Your task to perform on an android device: Add "apple airpods pro" to the cart on ebay.com, then select checkout. Image 0: 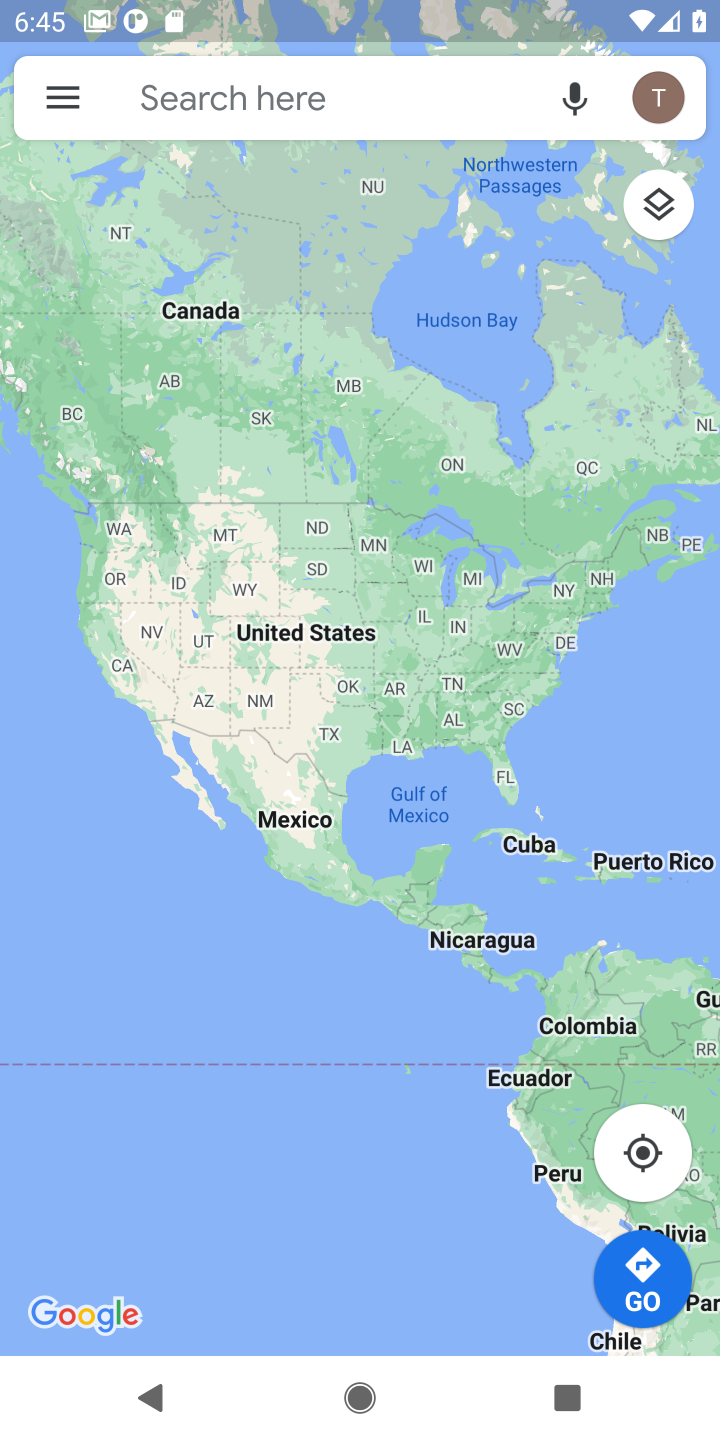
Step 0: press home button
Your task to perform on an android device: Add "apple airpods pro" to the cart on ebay.com, then select checkout. Image 1: 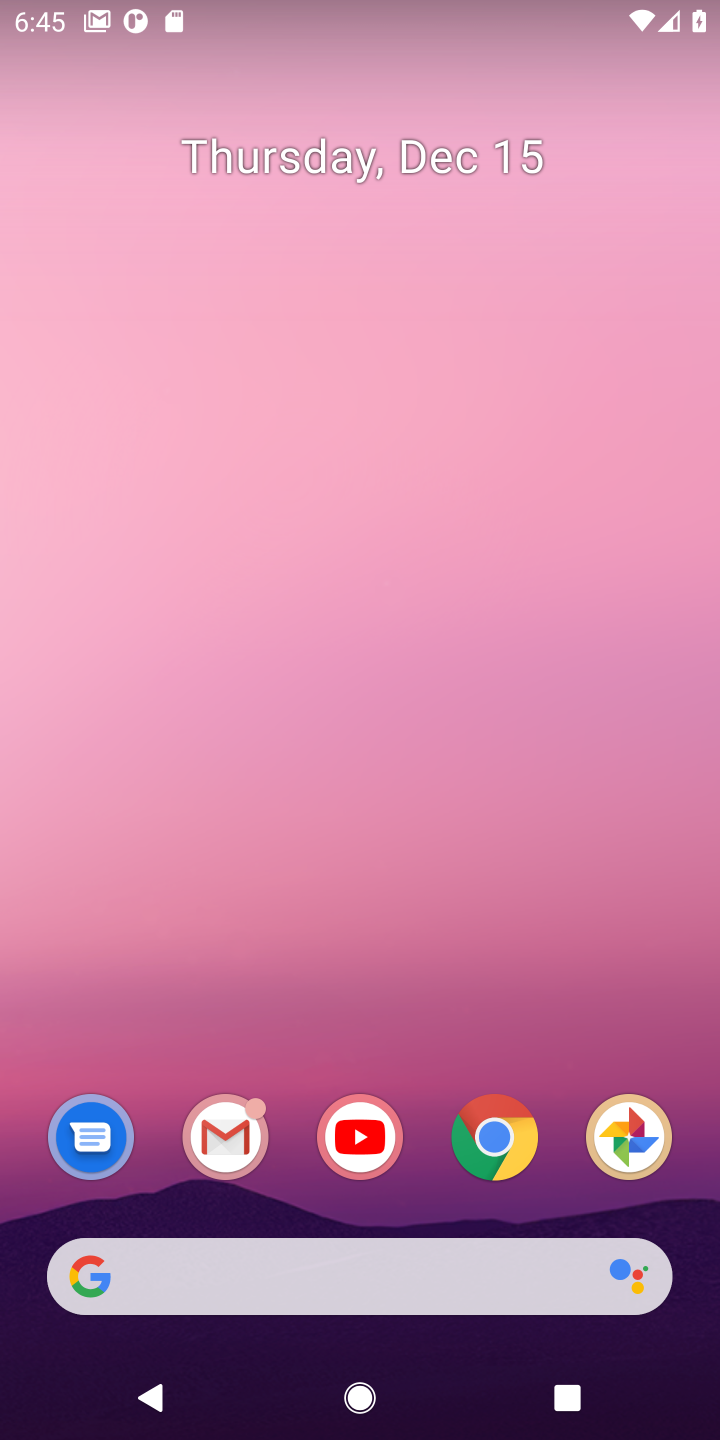
Step 1: drag from (409, 1210) to (409, 444)
Your task to perform on an android device: Add "apple airpods pro" to the cart on ebay.com, then select checkout. Image 2: 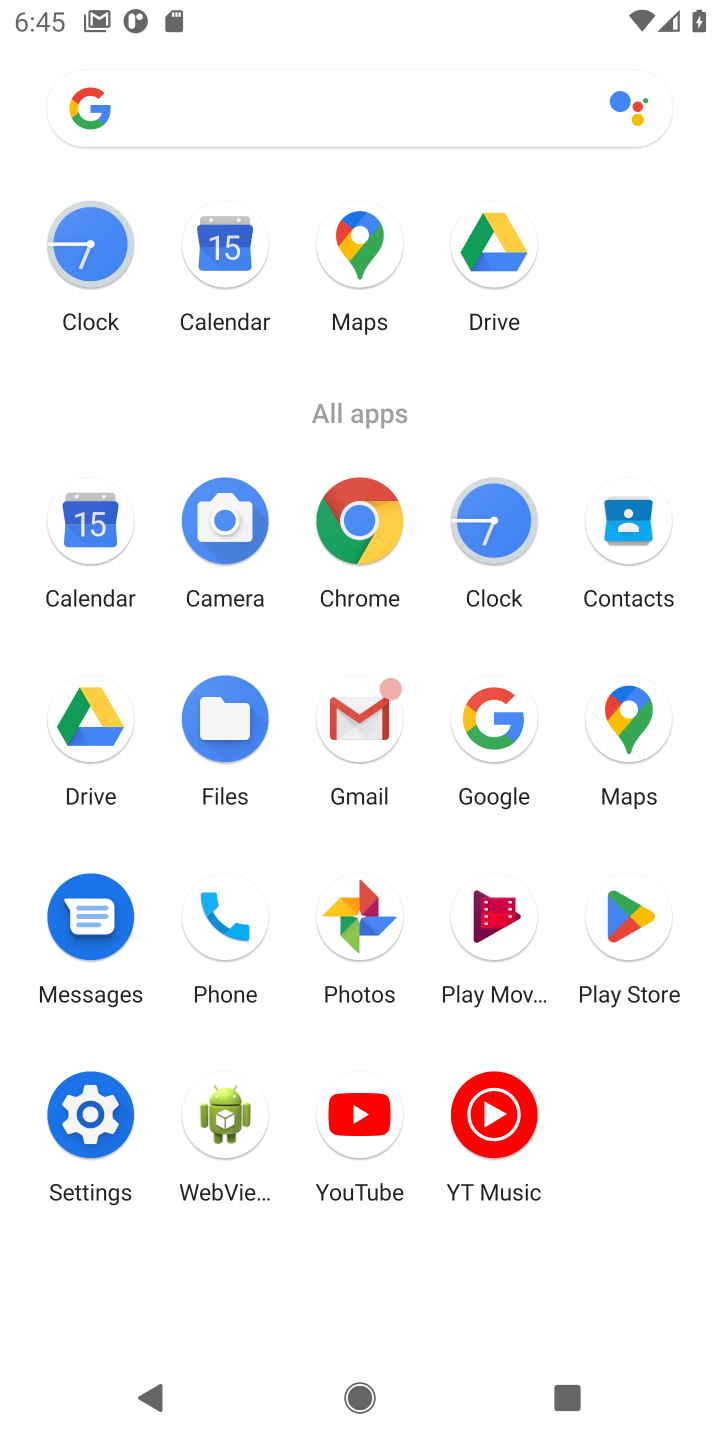
Step 2: click (484, 714)
Your task to perform on an android device: Add "apple airpods pro" to the cart on ebay.com, then select checkout. Image 3: 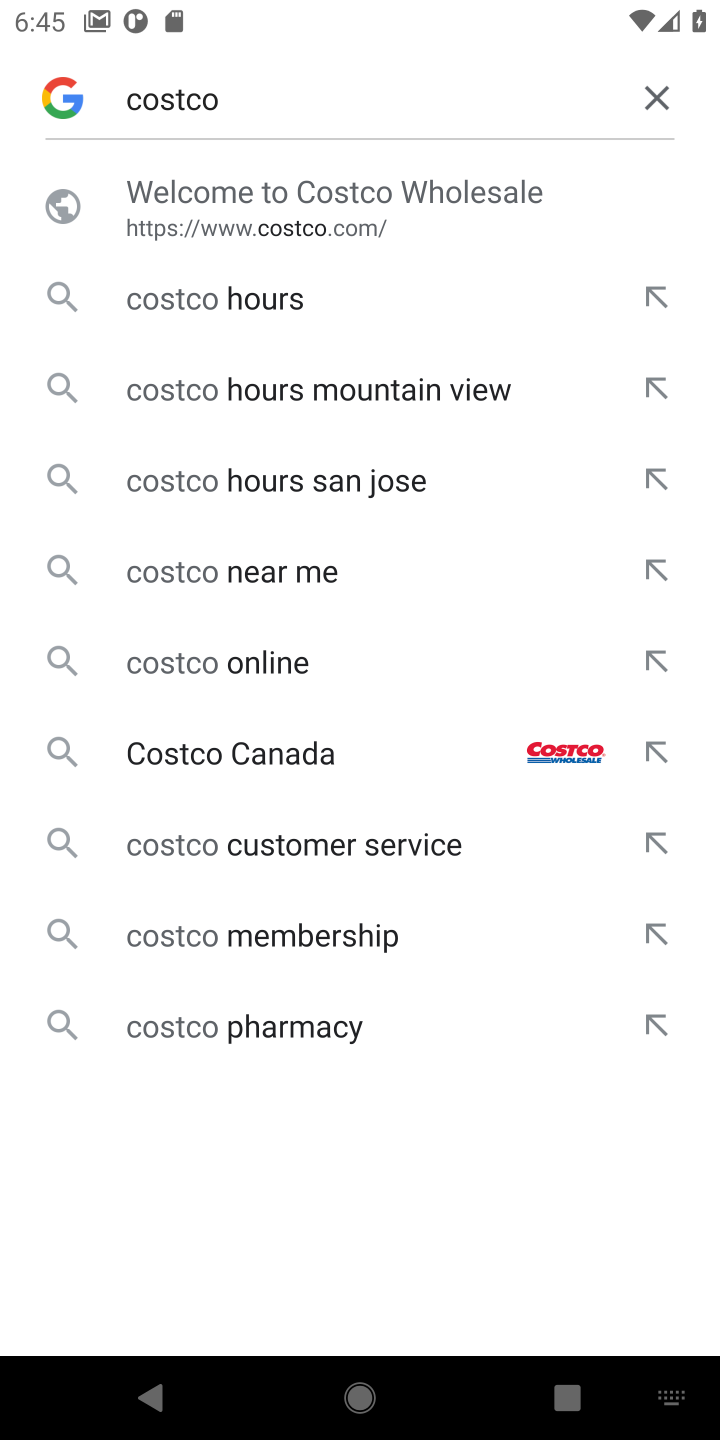
Step 3: click (203, 118)
Your task to perform on an android device: Add "apple airpods pro" to the cart on ebay.com, then select checkout. Image 4: 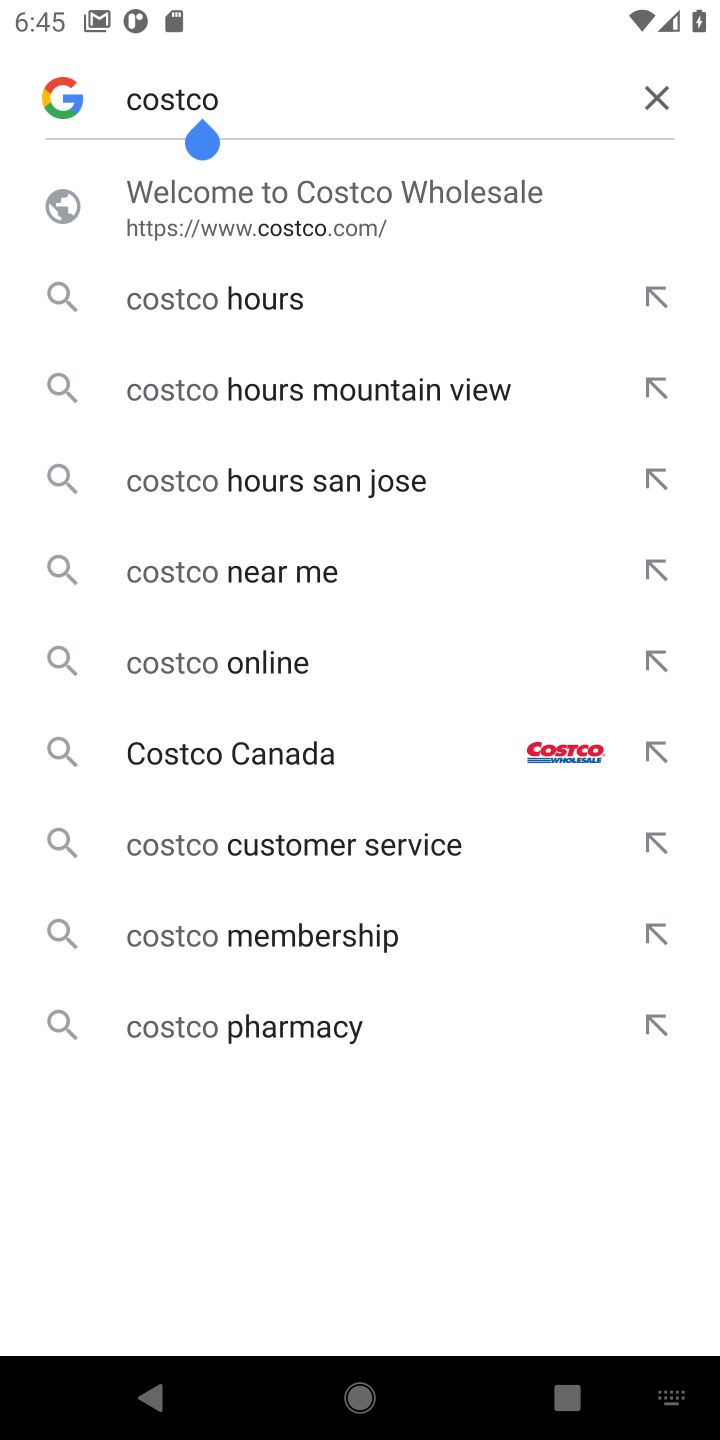
Step 4: click (651, 106)
Your task to perform on an android device: Add "apple airpods pro" to the cart on ebay.com, then select checkout. Image 5: 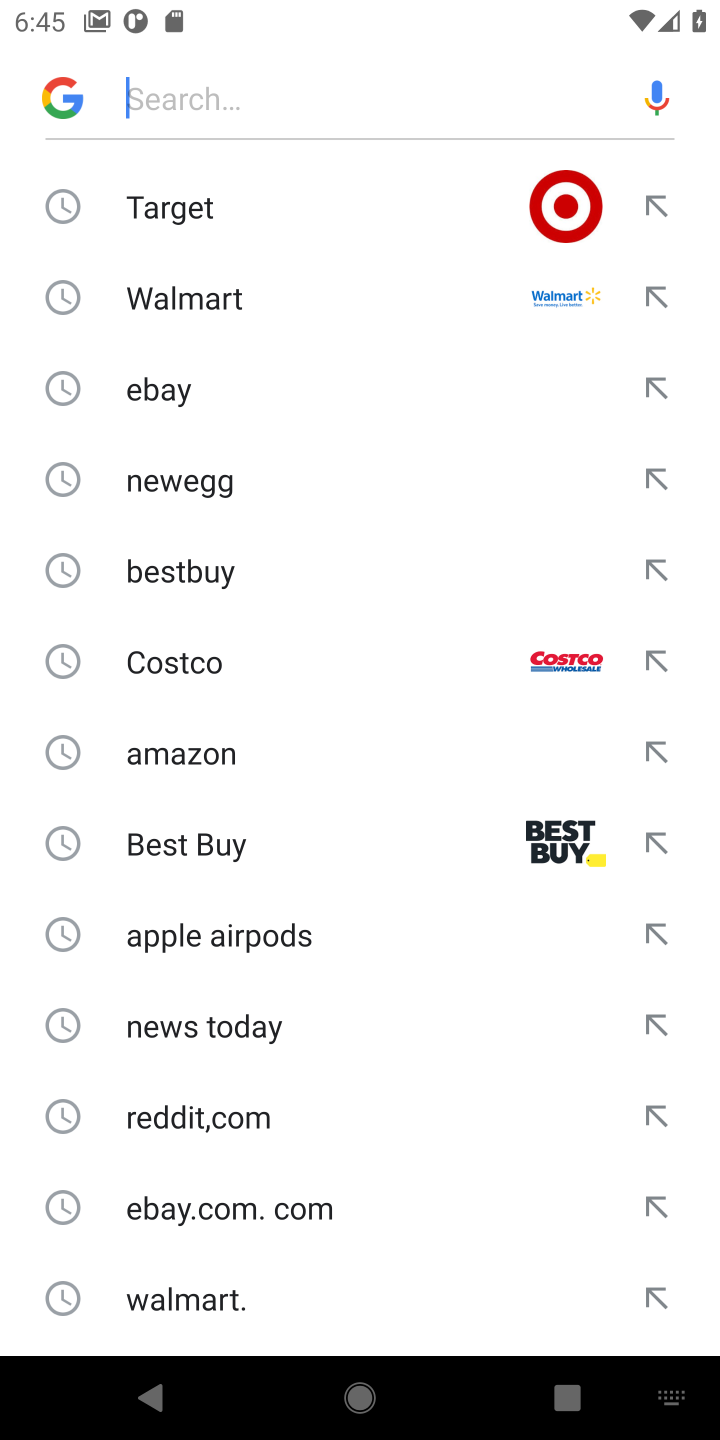
Step 5: click (165, 382)
Your task to perform on an android device: Add "apple airpods pro" to the cart on ebay.com, then select checkout. Image 6: 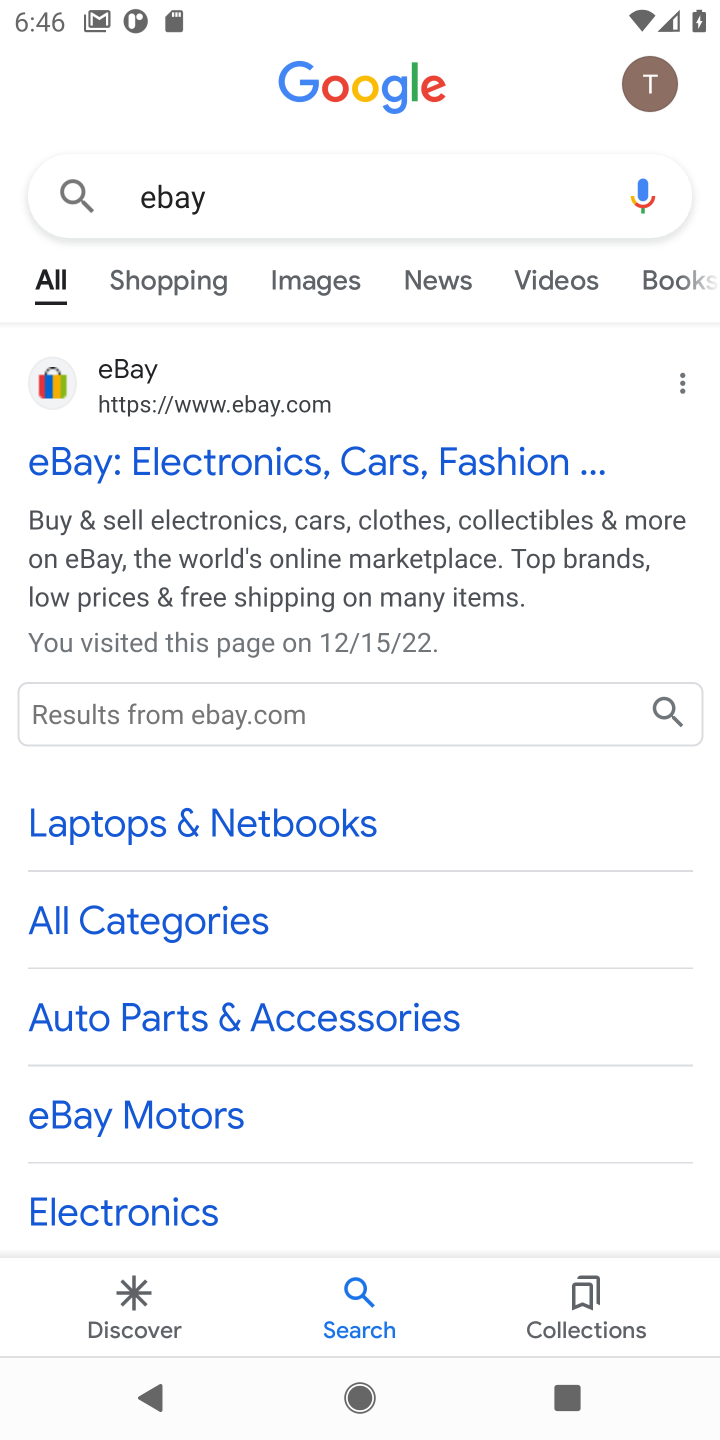
Step 6: click (223, 470)
Your task to perform on an android device: Add "apple airpods pro" to the cart on ebay.com, then select checkout. Image 7: 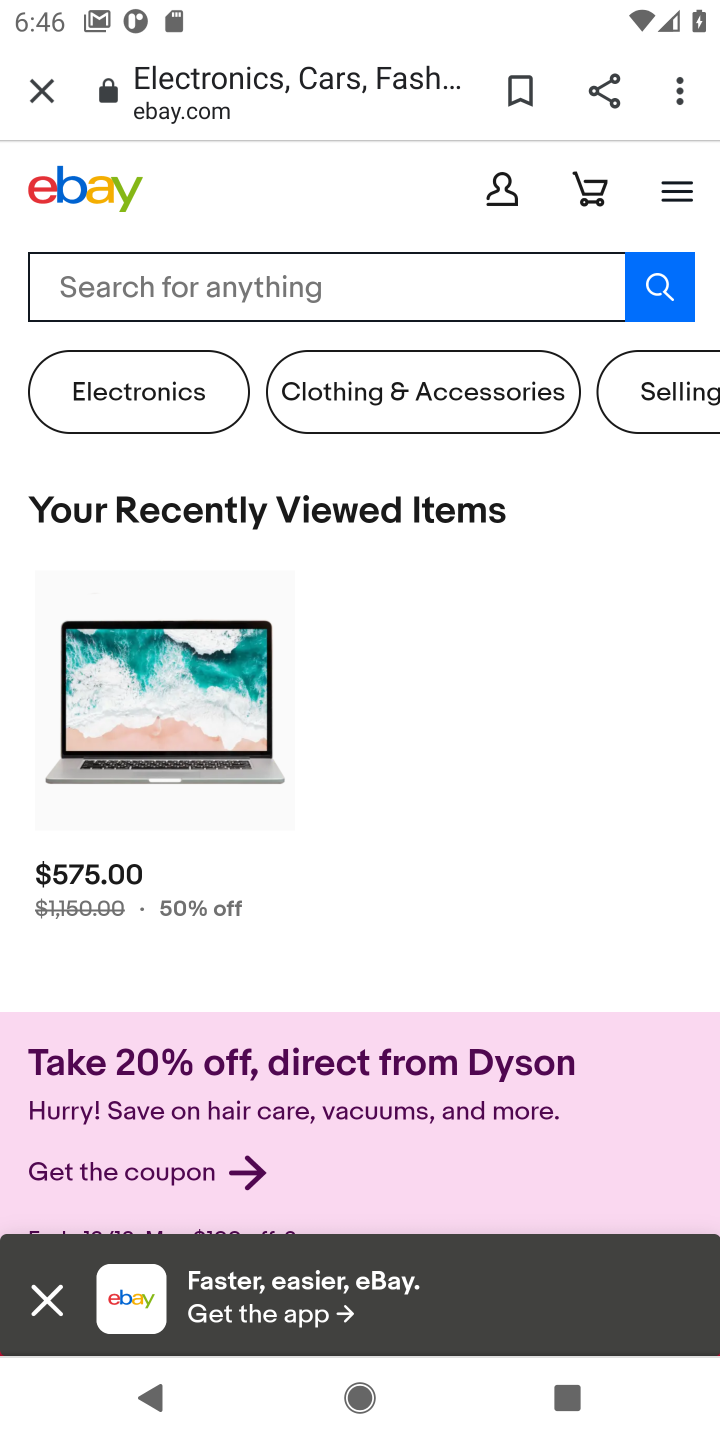
Step 7: click (155, 300)
Your task to perform on an android device: Add "apple airpods pro" to the cart on ebay.com, then select checkout. Image 8: 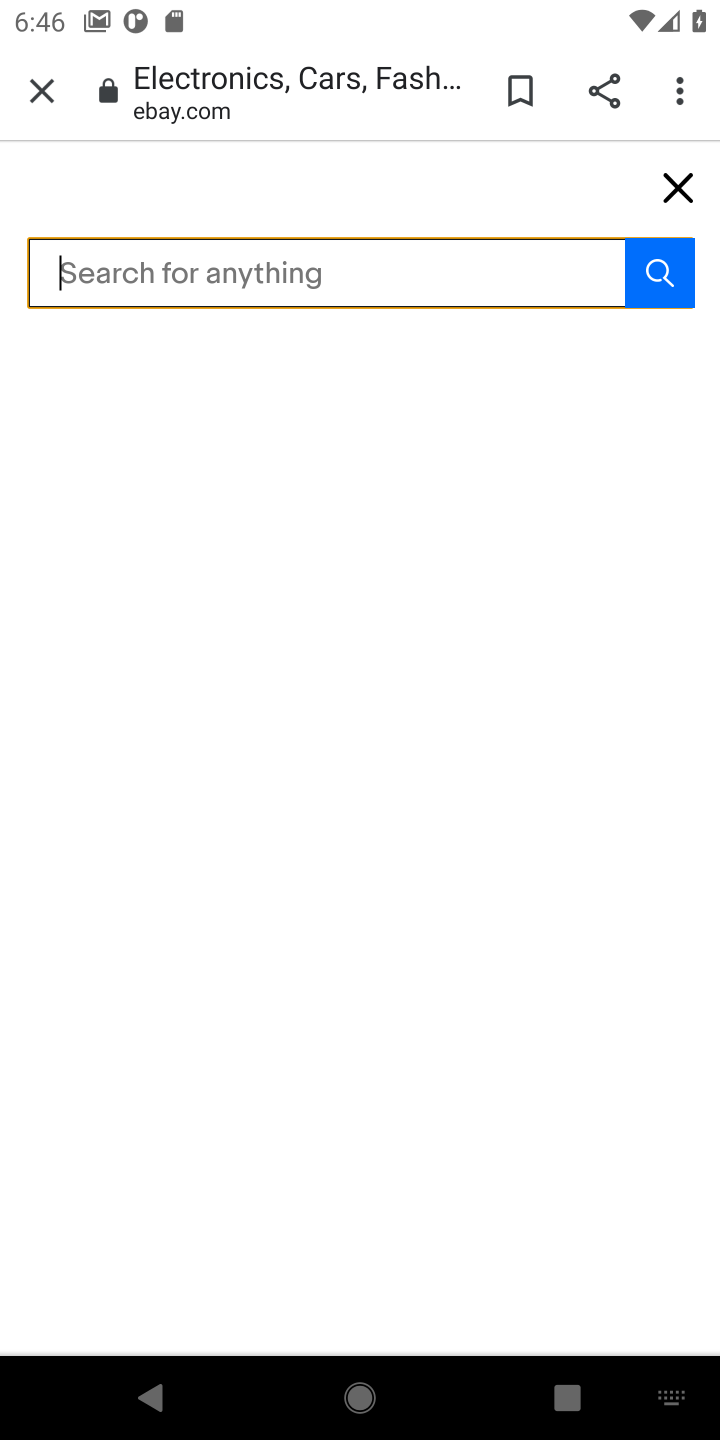
Step 8: type "apple airpods pro"
Your task to perform on an android device: Add "apple airpods pro" to the cart on ebay.com, then select checkout. Image 9: 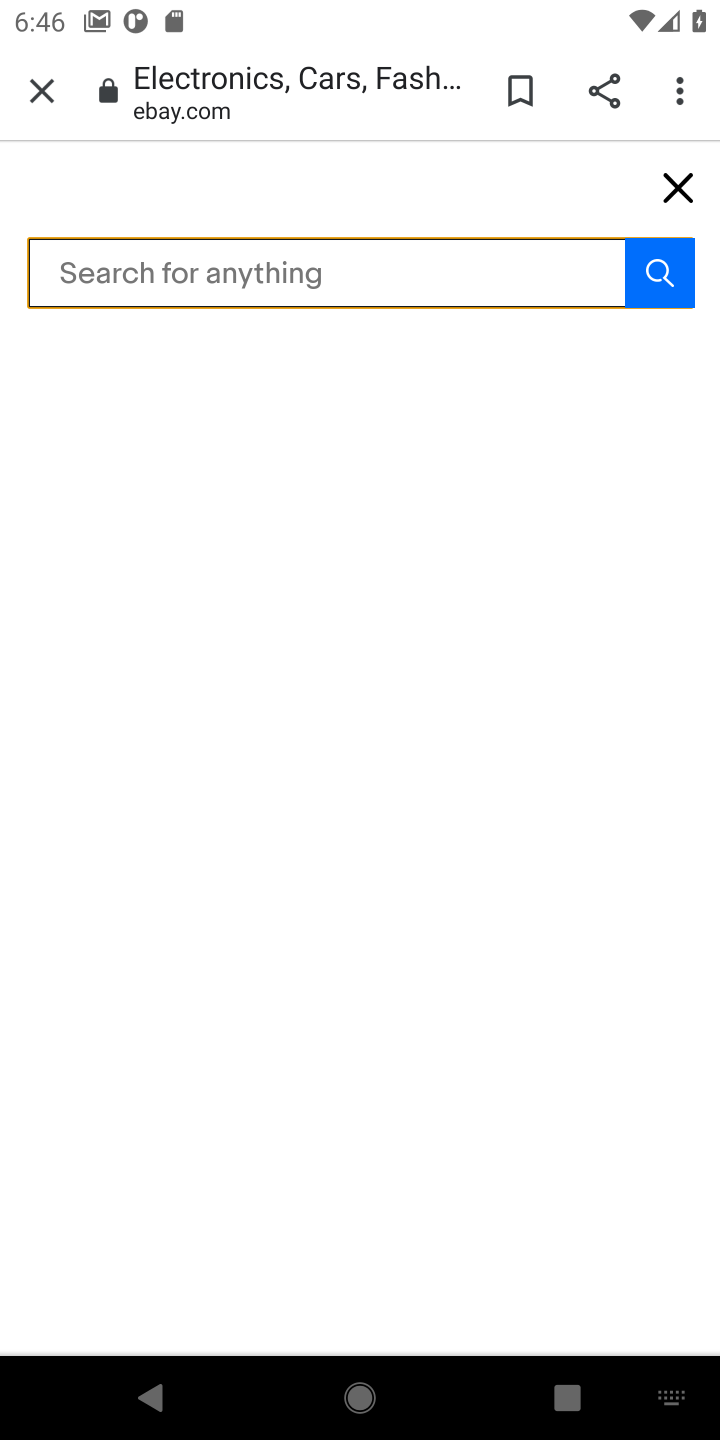
Step 9: click (657, 278)
Your task to perform on an android device: Add "apple airpods pro" to the cart on ebay.com, then select checkout. Image 10: 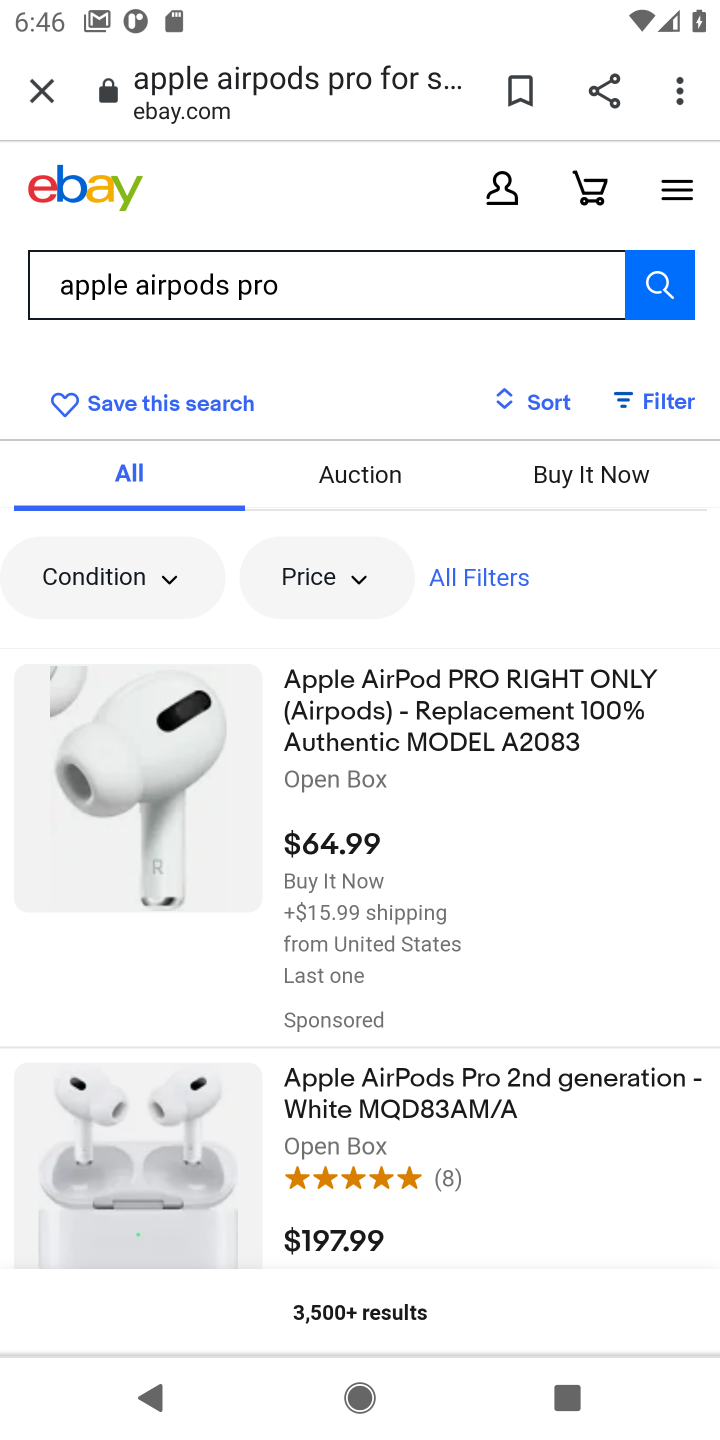
Step 10: click (374, 693)
Your task to perform on an android device: Add "apple airpods pro" to the cart on ebay.com, then select checkout. Image 11: 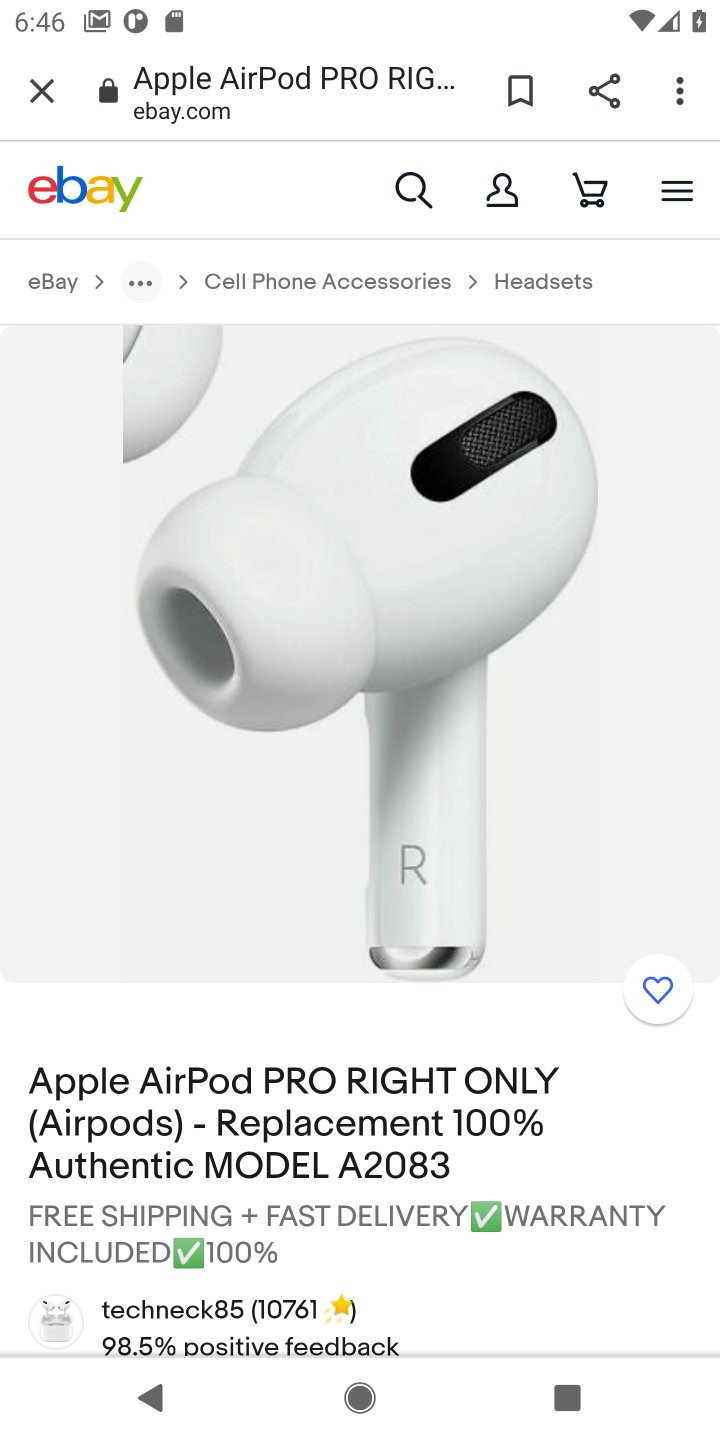
Step 11: drag from (426, 1288) to (421, 665)
Your task to perform on an android device: Add "apple airpods pro" to the cart on ebay.com, then select checkout. Image 12: 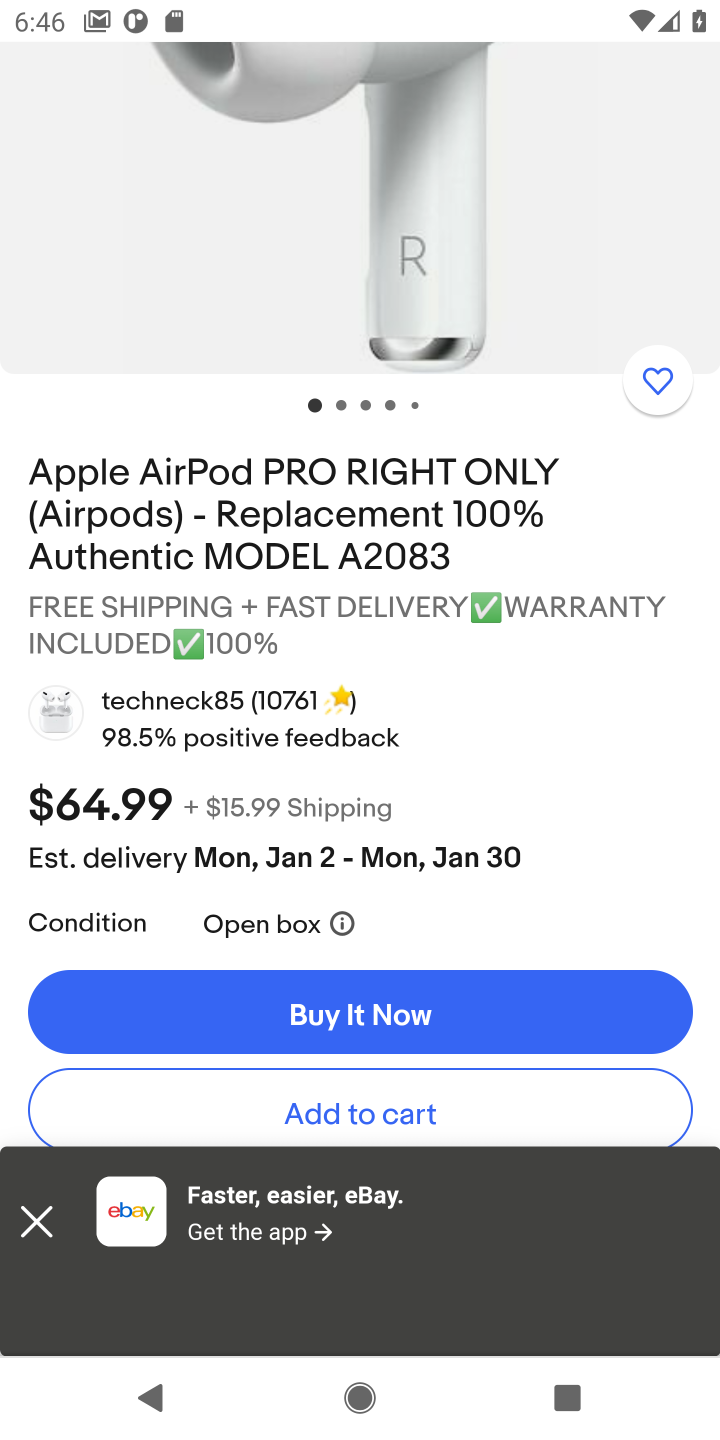
Step 12: click (353, 1109)
Your task to perform on an android device: Add "apple airpods pro" to the cart on ebay.com, then select checkout. Image 13: 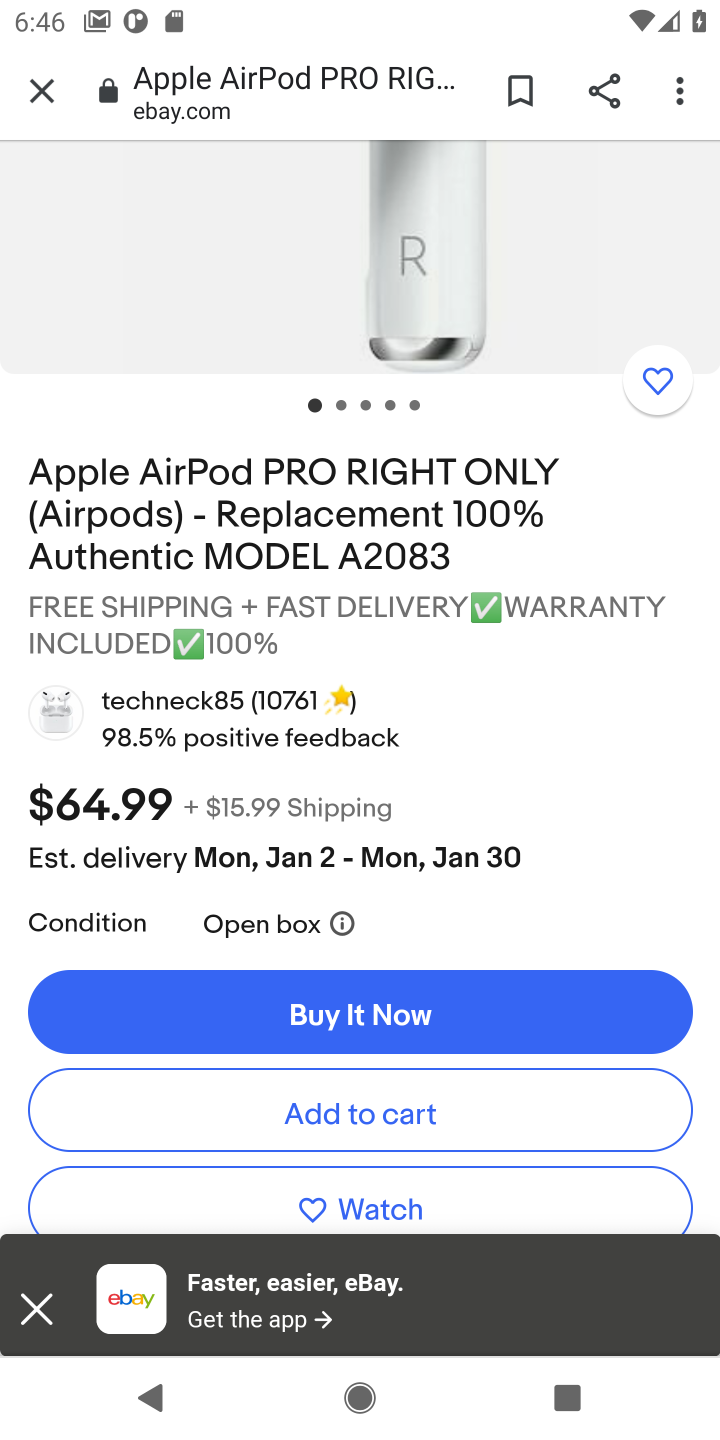
Step 13: click (353, 1109)
Your task to perform on an android device: Add "apple airpods pro" to the cart on ebay.com, then select checkout. Image 14: 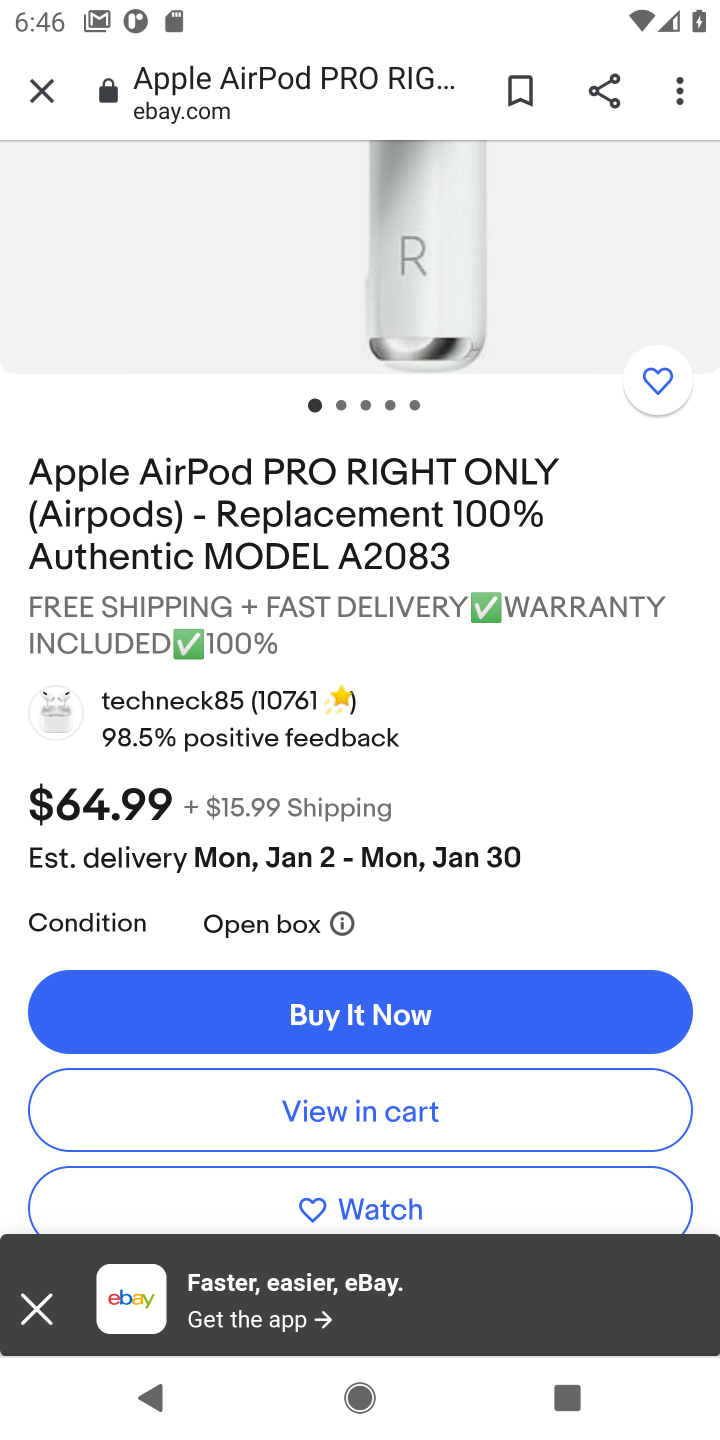
Step 14: click (353, 1109)
Your task to perform on an android device: Add "apple airpods pro" to the cart on ebay.com, then select checkout. Image 15: 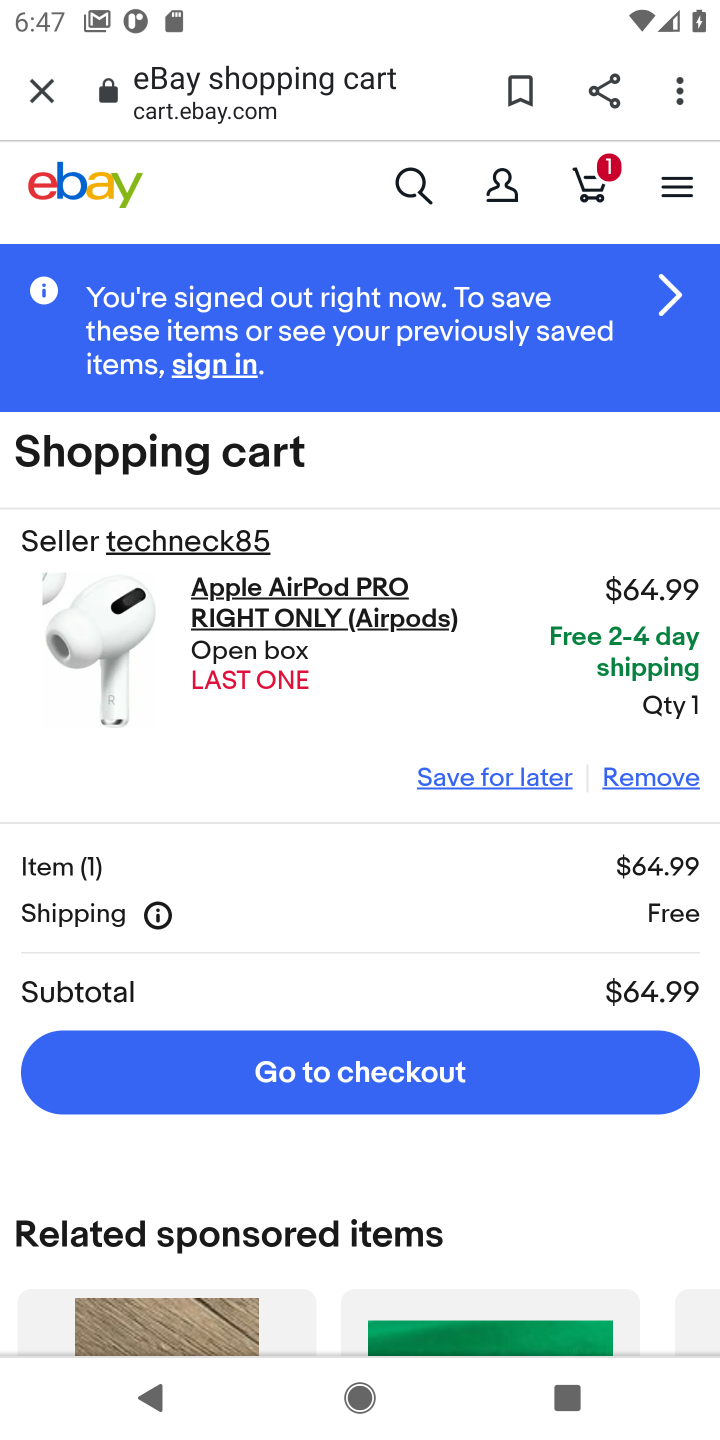
Step 15: click (350, 1086)
Your task to perform on an android device: Add "apple airpods pro" to the cart on ebay.com, then select checkout. Image 16: 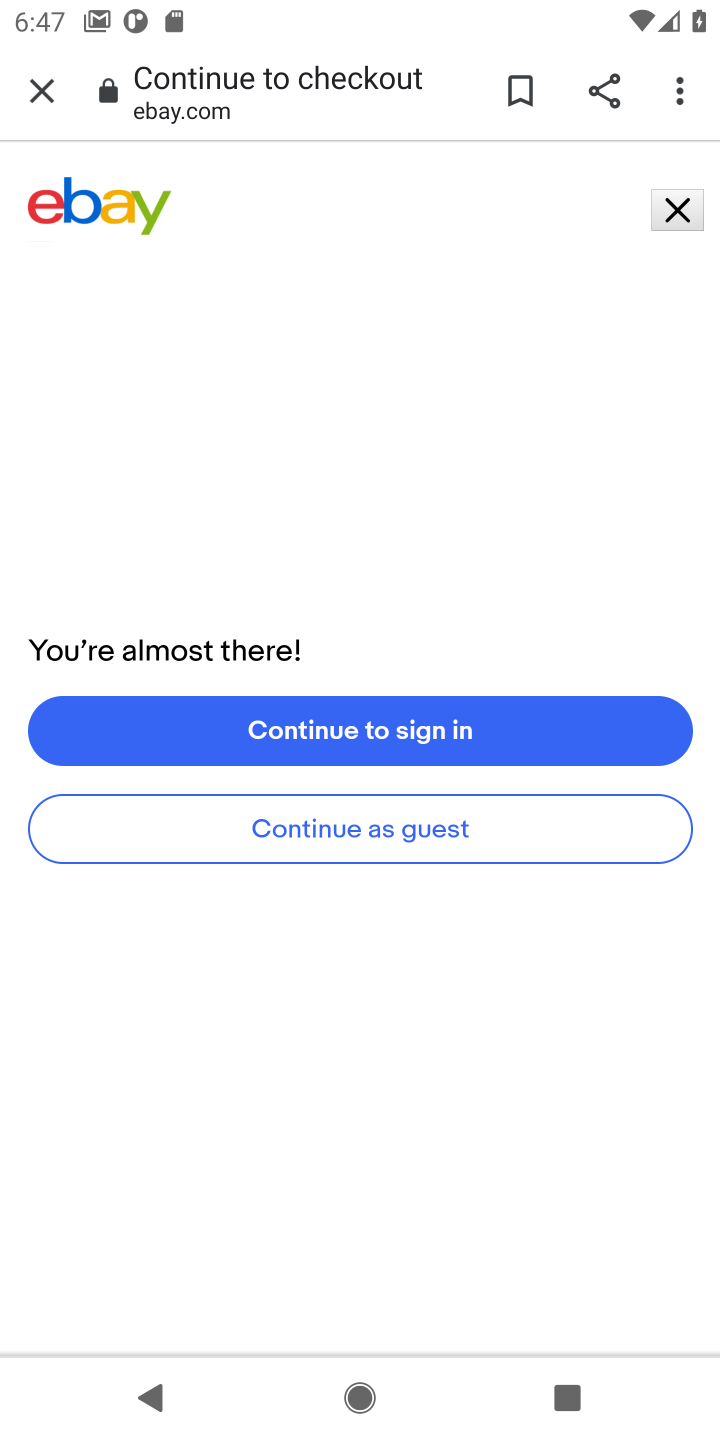
Step 16: task complete